Your task to perform on an android device: see creations saved in the google photos Image 0: 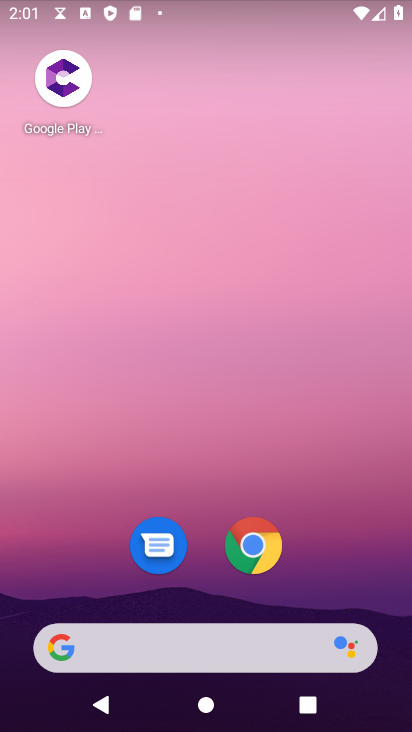
Step 0: drag from (197, 583) to (193, 122)
Your task to perform on an android device: see creations saved in the google photos Image 1: 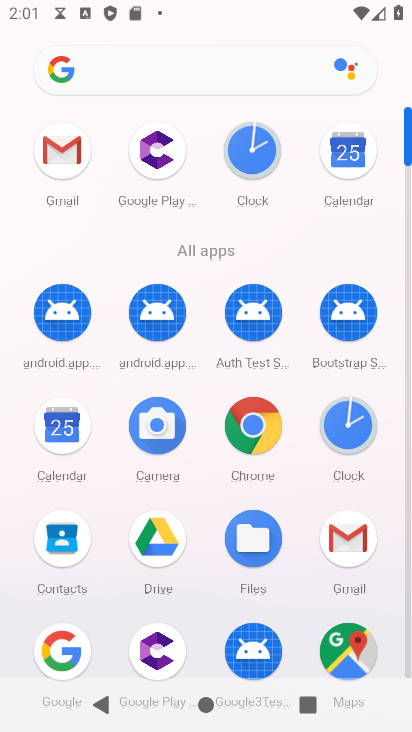
Step 1: drag from (210, 576) to (195, 54)
Your task to perform on an android device: see creations saved in the google photos Image 2: 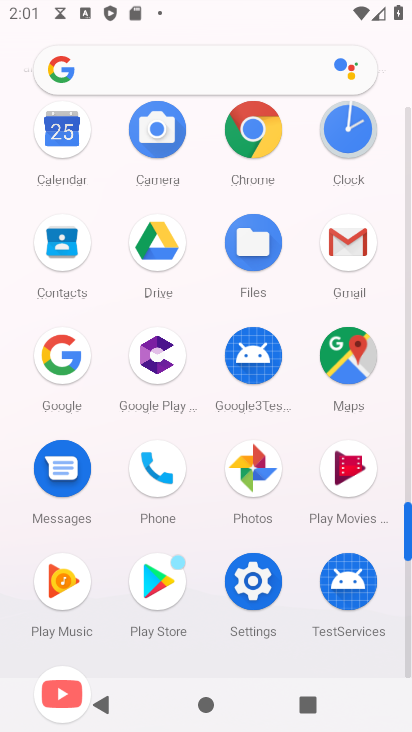
Step 2: click (256, 464)
Your task to perform on an android device: see creations saved in the google photos Image 3: 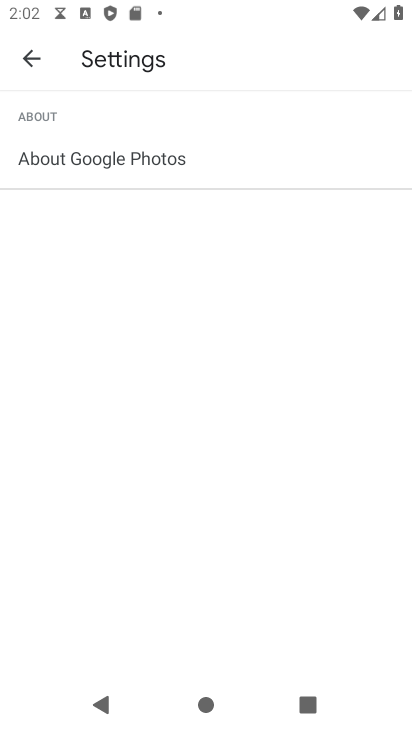
Step 3: press home button
Your task to perform on an android device: see creations saved in the google photos Image 4: 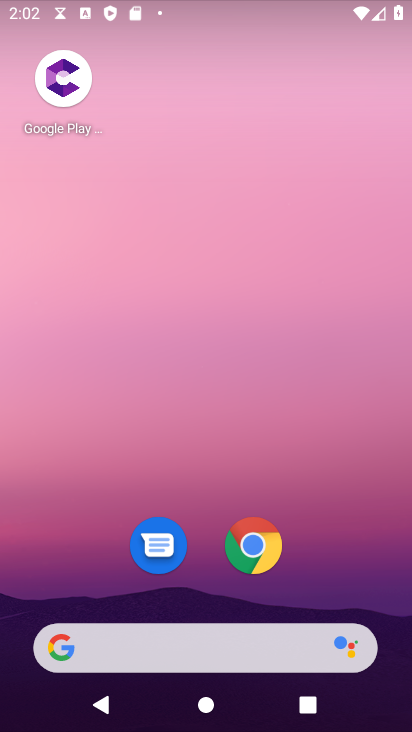
Step 4: drag from (197, 657) to (200, 82)
Your task to perform on an android device: see creations saved in the google photos Image 5: 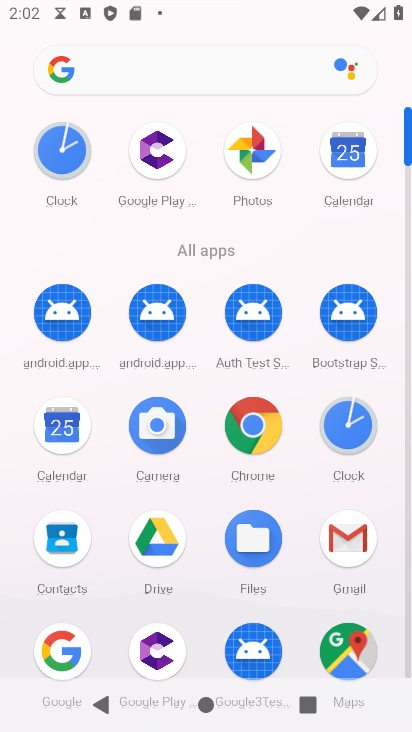
Step 5: click (252, 142)
Your task to perform on an android device: see creations saved in the google photos Image 6: 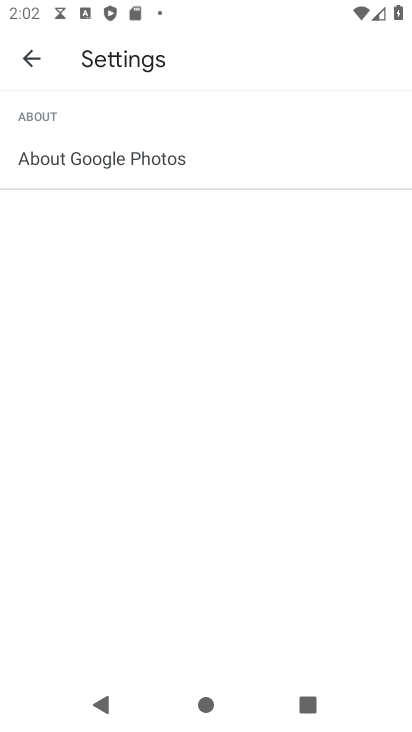
Step 6: click (21, 66)
Your task to perform on an android device: see creations saved in the google photos Image 7: 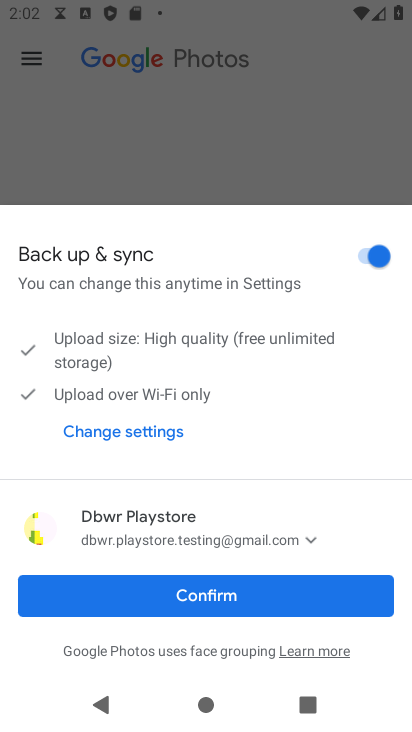
Step 7: click (219, 606)
Your task to perform on an android device: see creations saved in the google photos Image 8: 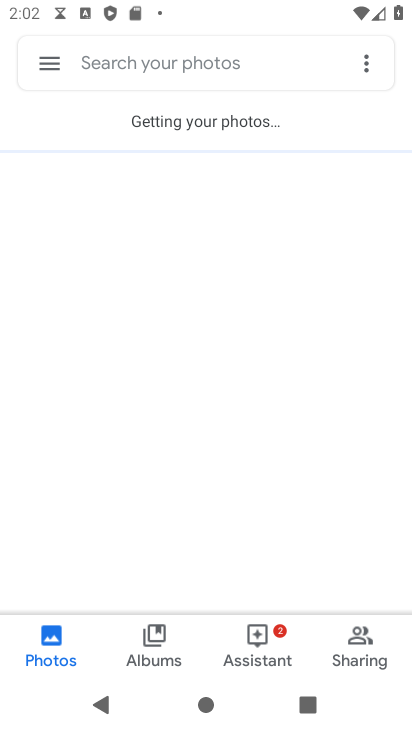
Step 8: click (262, 634)
Your task to perform on an android device: see creations saved in the google photos Image 9: 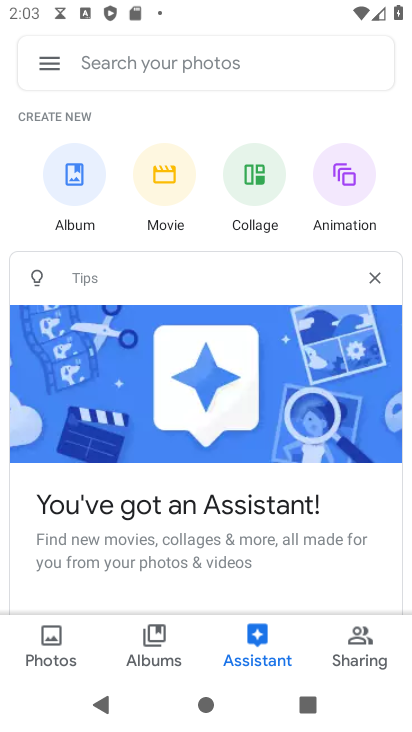
Step 9: drag from (230, 571) to (126, 7)
Your task to perform on an android device: see creations saved in the google photos Image 10: 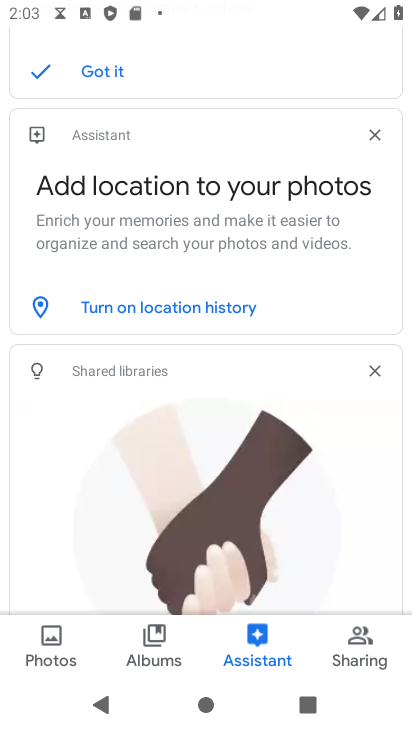
Step 10: click (362, 633)
Your task to perform on an android device: see creations saved in the google photos Image 11: 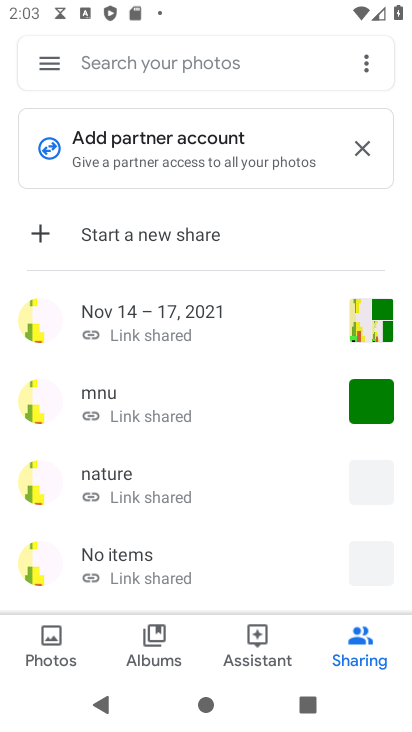
Step 11: task complete